Your task to perform on an android device: find which apps use the phone's location Image 0: 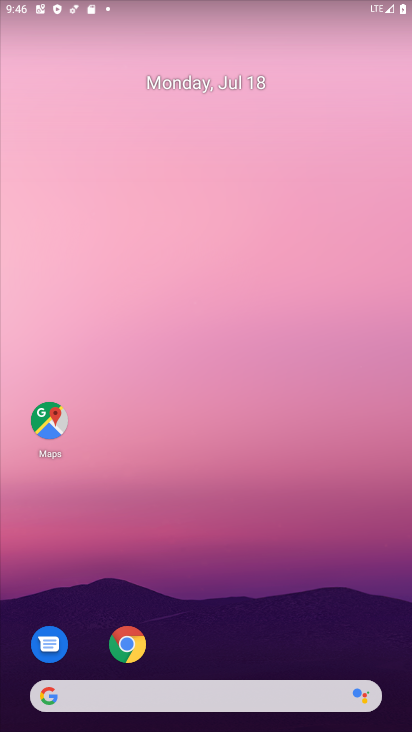
Step 0: drag from (312, 627) to (339, 161)
Your task to perform on an android device: find which apps use the phone's location Image 1: 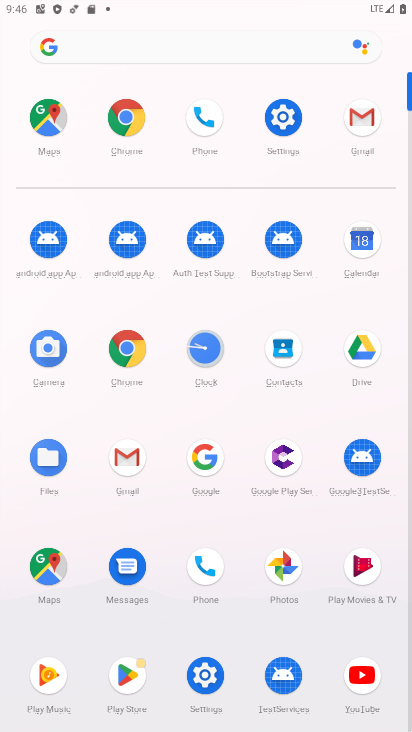
Step 1: click (209, 672)
Your task to perform on an android device: find which apps use the phone's location Image 2: 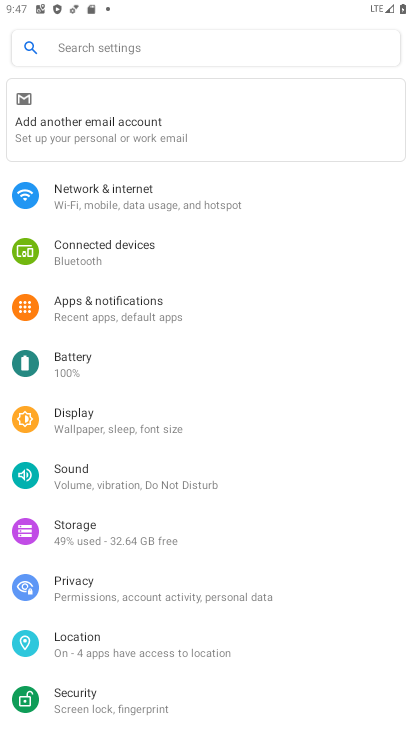
Step 2: drag from (340, 642) to (346, 533)
Your task to perform on an android device: find which apps use the phone's location Image 3: 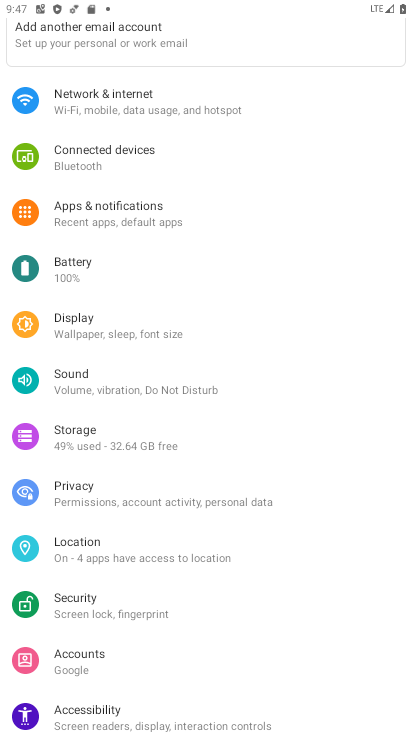
Step 3: drag from (334, 676) to (337, 535)
Your task to perform on an android device: find which apps use the phone's location Image 4: 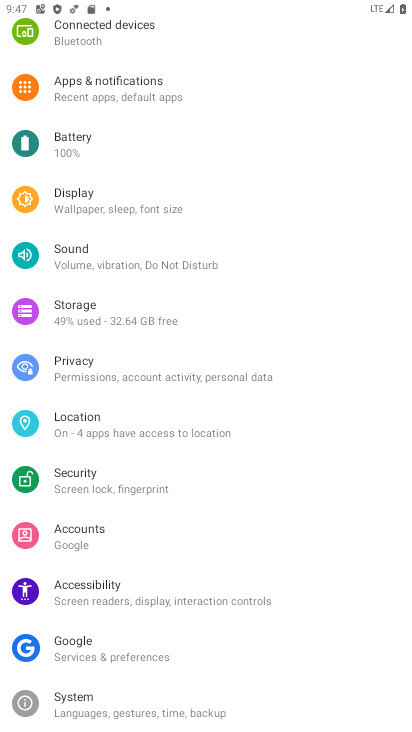
Step 4: drag from (345, 677) to (343, 538)
Your task to perform on an android device: find which apps use the phone's location Image 5: 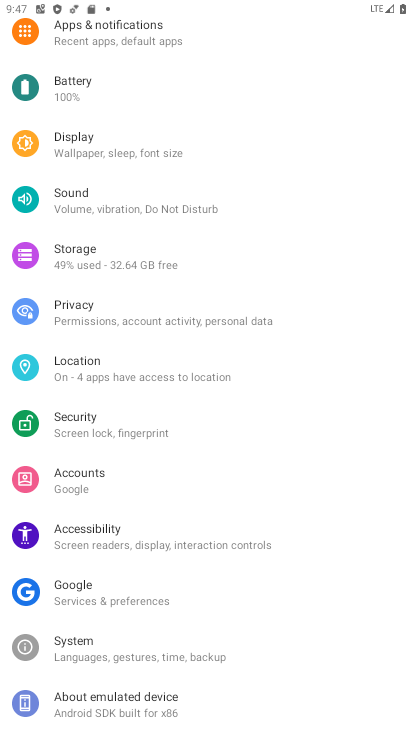
Step 5: drag from (350, 413) to (347, 526)
Your task to perform on an android device: find which apps use the phone's location Image 6: 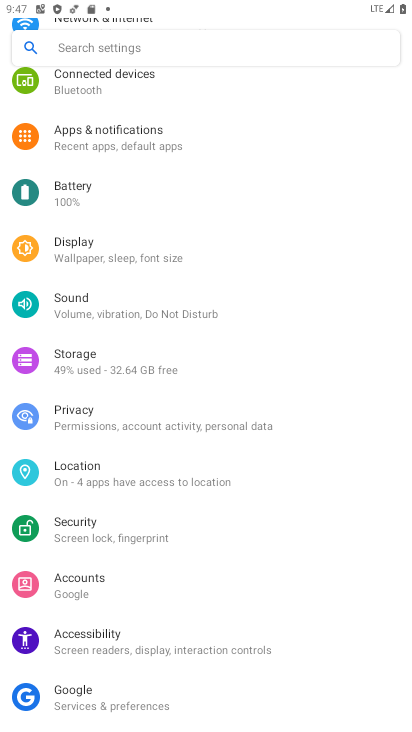
Step 6: click (226, 470)
Your task to perform on an android device: find which apps use the phone's location Image 7: 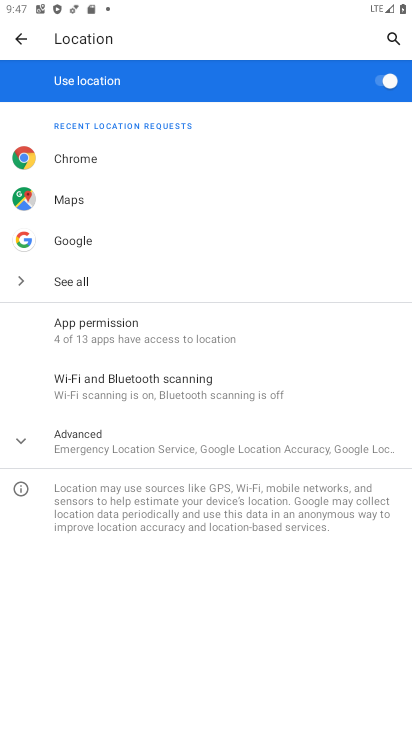
Step 7: click (218, 335)
Your task to perform on an android device: find which apps use the phone's location Image 8: 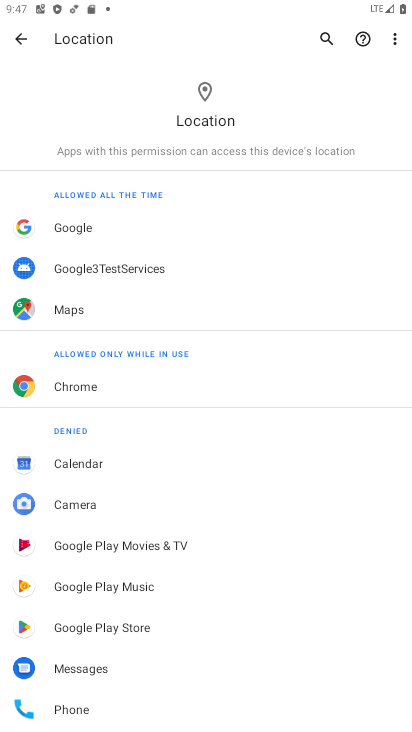
Step 8: drag from (301, 541) to (307, 496)
Your task to perform on an android device: find which apps use the phone's location Image 9: 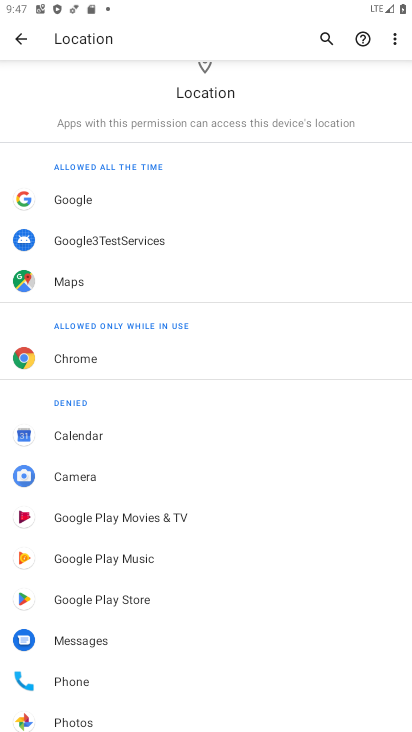
Step 9: drag from (310, 562) to (312, 474)
Your task to perform on an android device: find which apps use the phone's location Image 10: 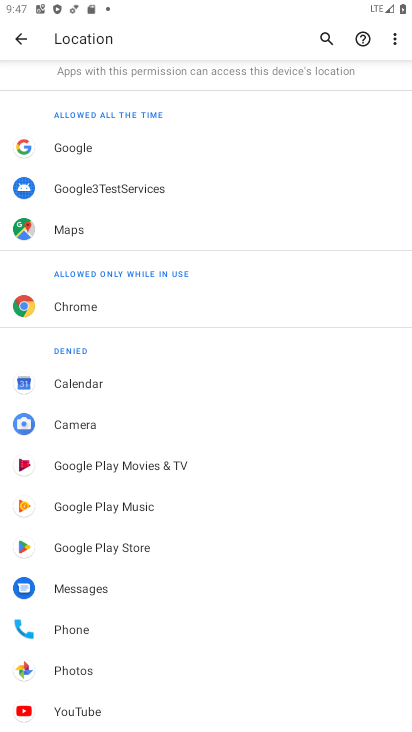
Step 10: click (148, 671)
Your task to perform on an android device: find which apps use the phone's location Image 11: 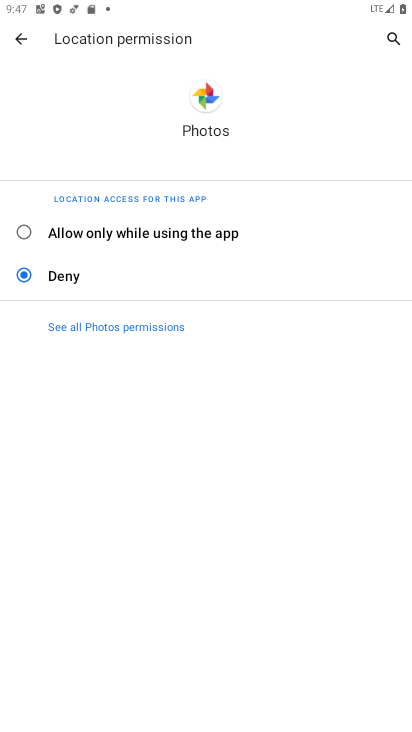
Step 11: click (197, 225)
Your task to perform on an android device: find which apps use the phone's location Image 12: 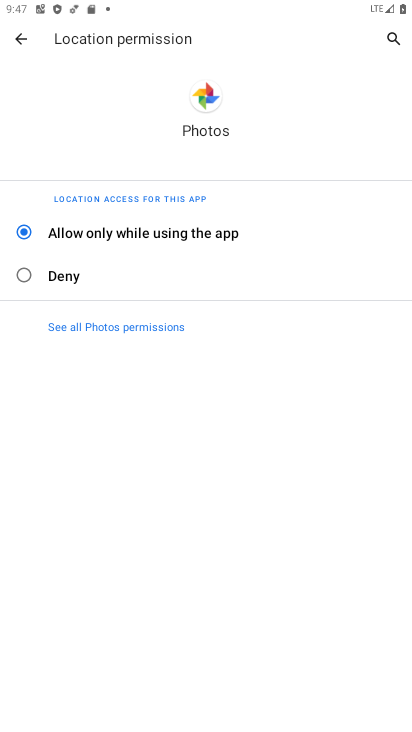
Step 12: task complete